Your task to perform on an android device: Add "macbook pro 15 inch" to the cart on newegg.com Image 0: 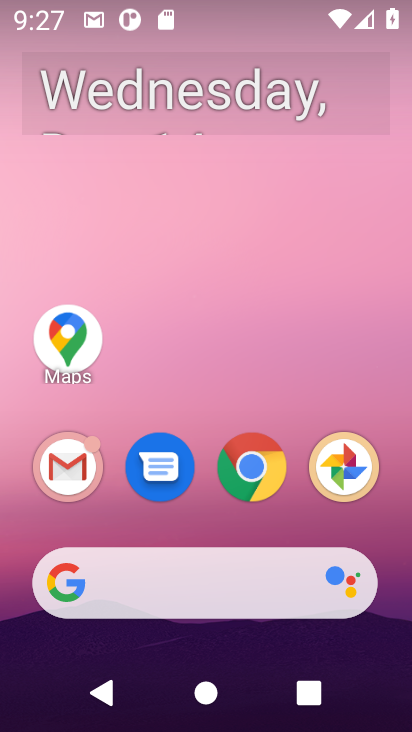
Step 0: click (263, 449)
Your task to perform on an android device: Add "macbook pro 15 inch" to the cart on newegg.com Image 1: 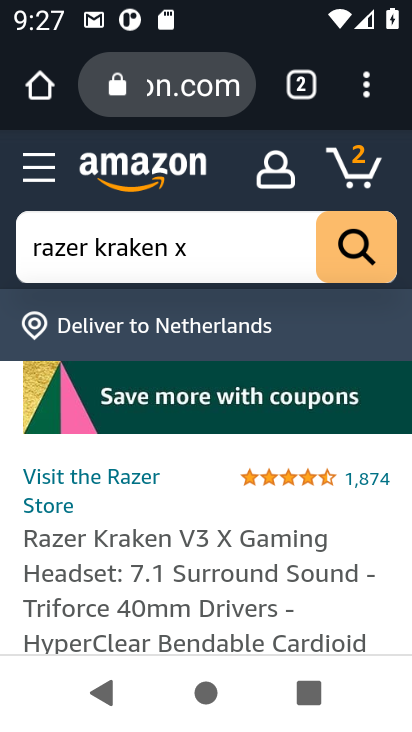
Step 1: click (195, 254)
Your task to perform on an android device: Add "macbook pro 15 inch" to the cart on newegg.com Image 2: 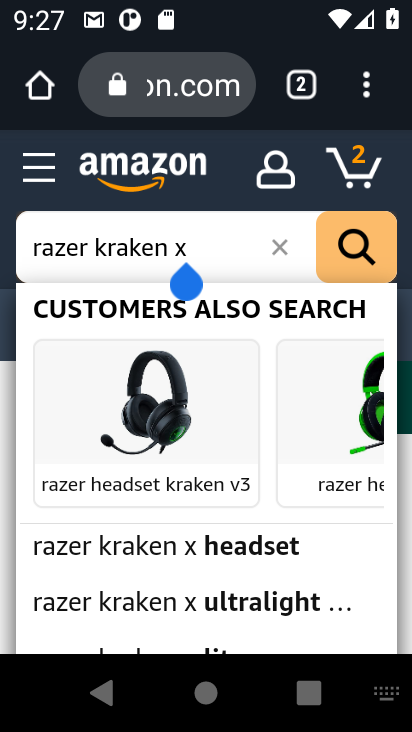
Step 2: click (276, 258)
Your task to perform on an android device: Add "macbook pro 15 inch" to the cart on newegg.com Image 3: 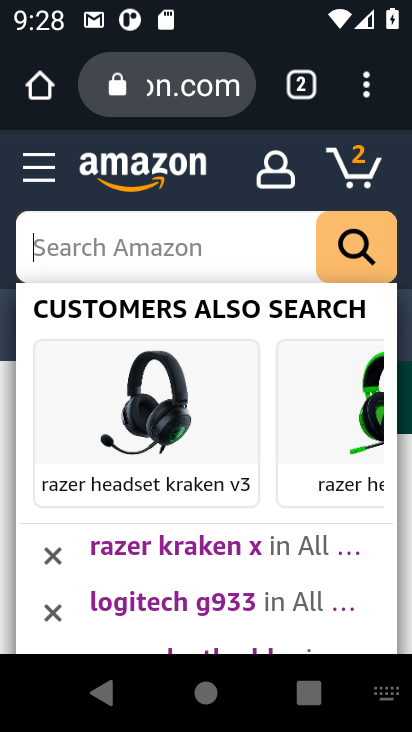
Step 3: type "macbook pro 15"
Your task to perform on an android device: Add "macbook pro 15 inch" to the cart on newegg.com Image 4: 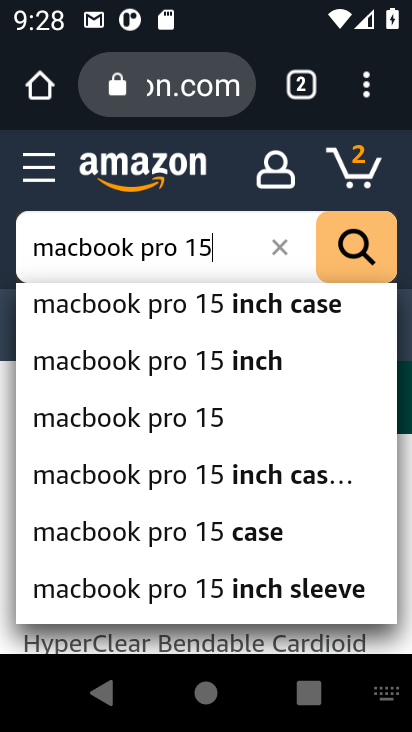
Step 4: click (343, 252)
Your task to perform on an android device: Add "macbook pro 15 inch" to the cart on newegg.com Image 5: 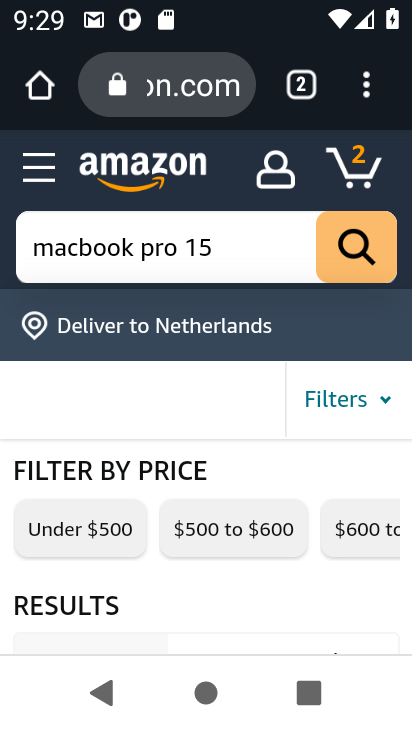
Step 5: click (343, 252)
Your task to perform on an android device: Add "macbook pro 15 inch" to the cart on newegg.com Image 6: 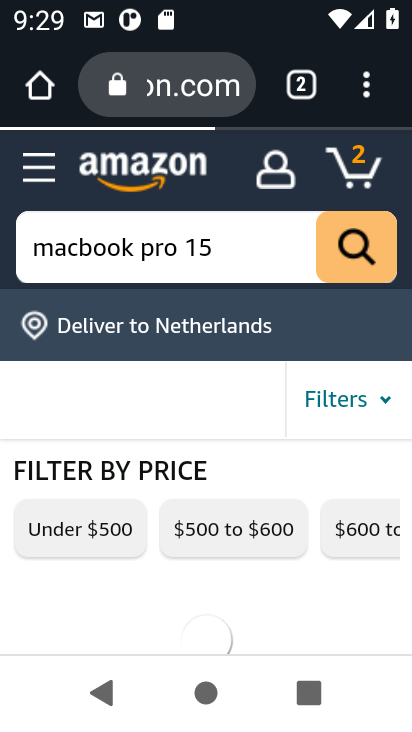
Step 6: task complete